Your task to perform on an android device: Open display settings Image 0: 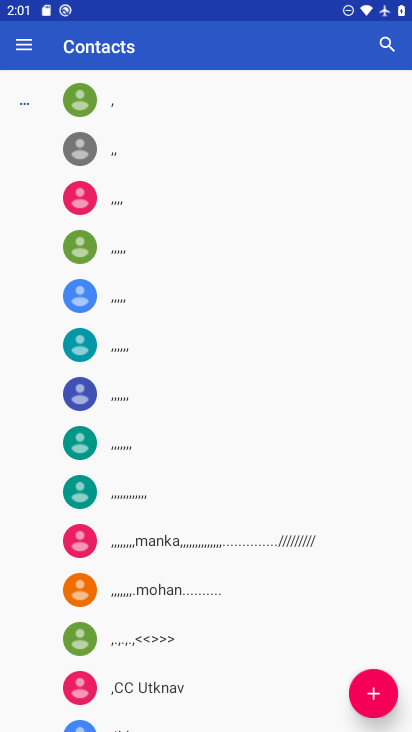
Step 0: press home button
Your task to perform on an android device: Open display settings Image 1: 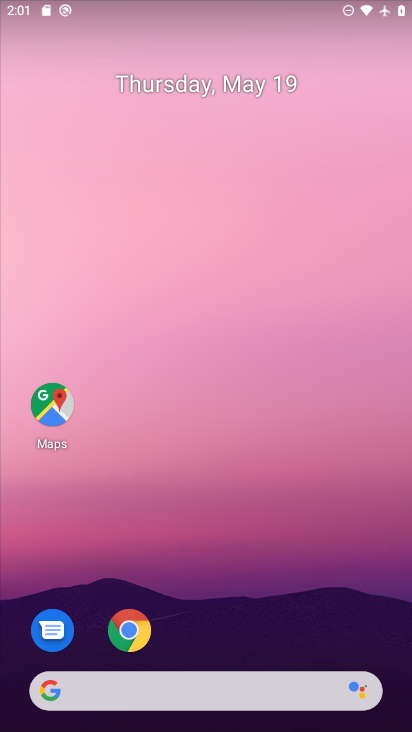
Step 1: drag from (226, 649) to (201, 4)
Your task to perform on an android device: Open display settings Image 2: 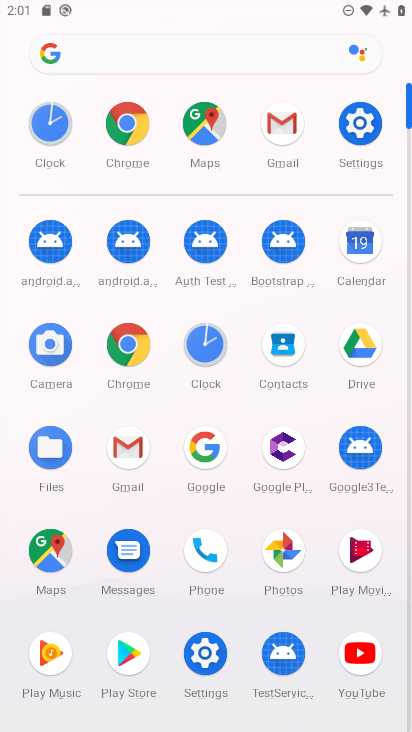
Step 2: click (345, 131)
Your task to perform on an android device: Open display settings Image 3: 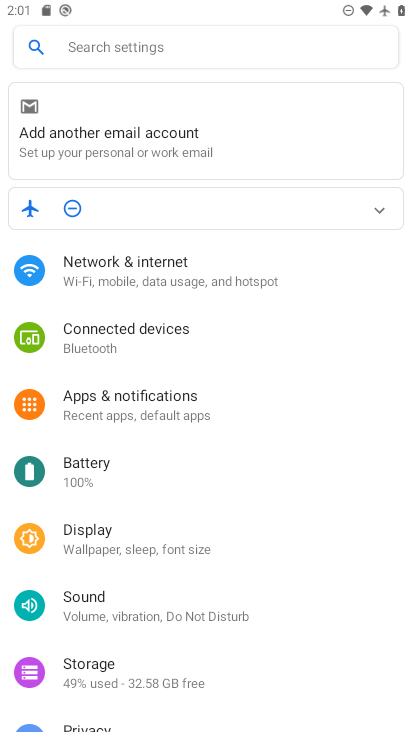
Step 3: click (136, 554)
Your task to perform on an android device: Open display settings Image 4: 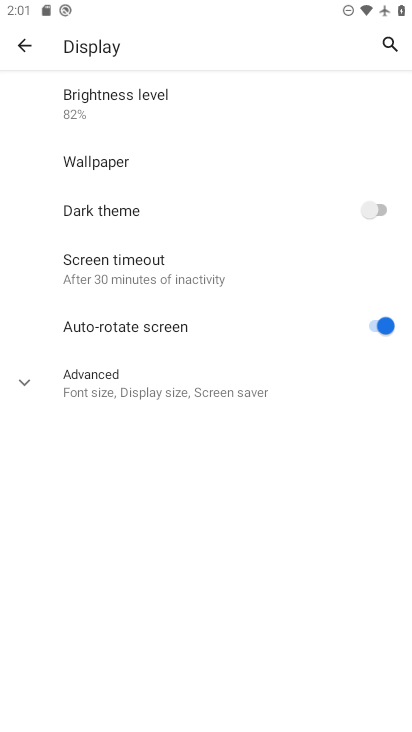
Step 4: click (134, 386)
Your task to perform on an android device: Open display settings Image 5: 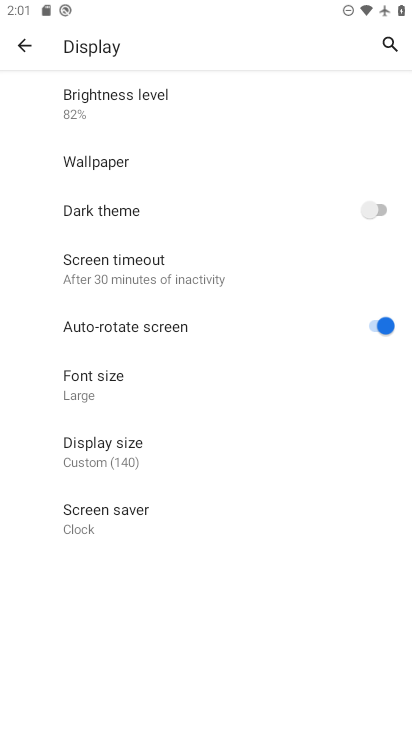
Step 5: task complete